Your task to perform on an android device: Go to Amazon Image 0: 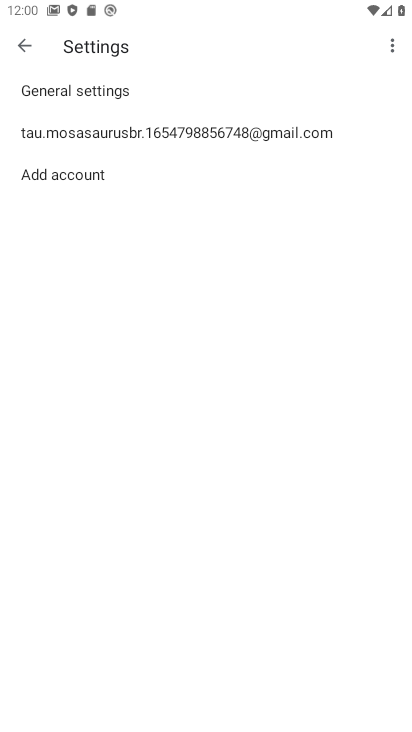
Step 0: press home button
Your task to perform on an android device: Go to Amazon Image 1: 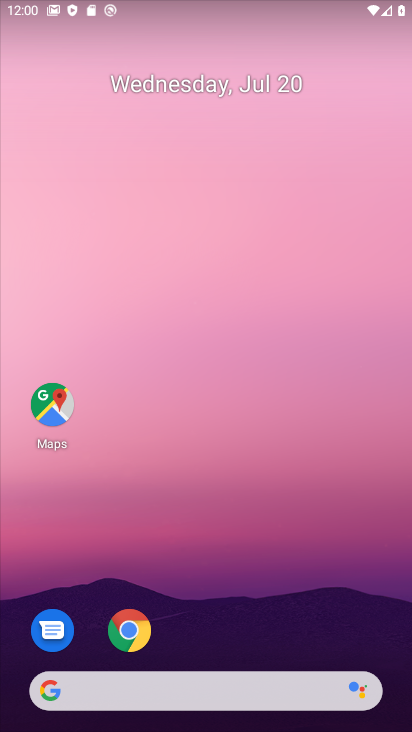
Step 1: click (129, 626)
Your task to perform on an android device: Go to Amazon Image 2: 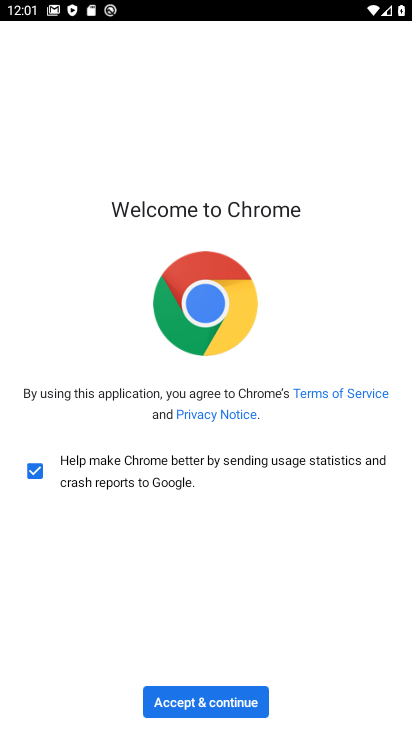
Step 2: click (203, 709)
Your task to perform on an android device: Go to Amazon Image 3: 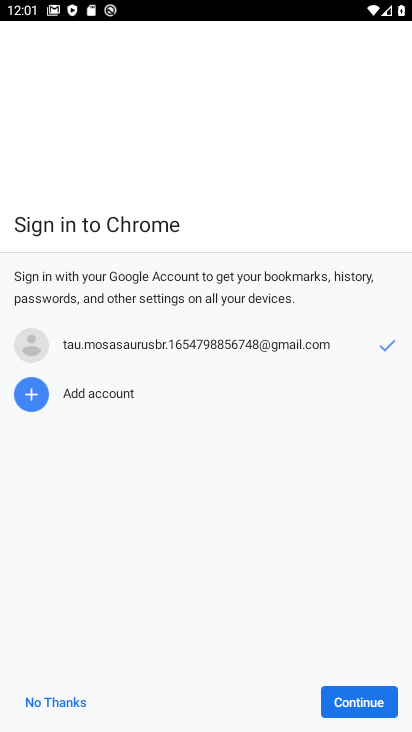
Step 3: click (344, 707)
Your task to perform on an android device: Go to Amazon Image 4: 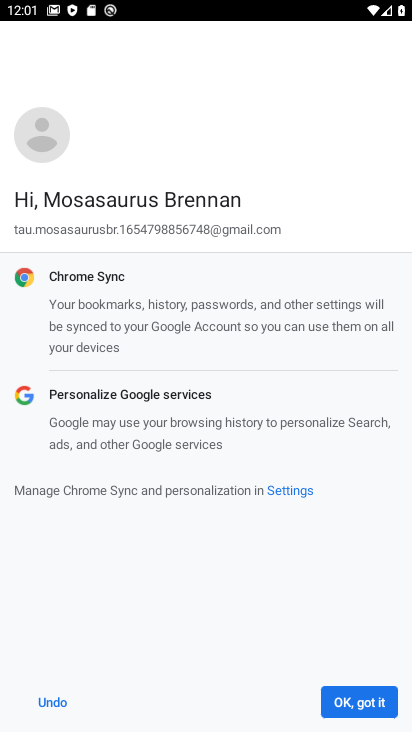
Step 4: click (344, 707)
Your task to perform on an android device: Go to Amazon Image 5: 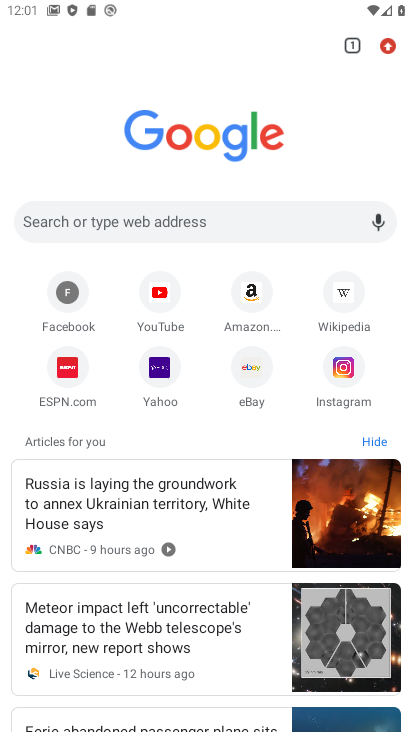
Step 5: click (250, 284)
Your task to perform on an android device: Go to Amazon Image 6: 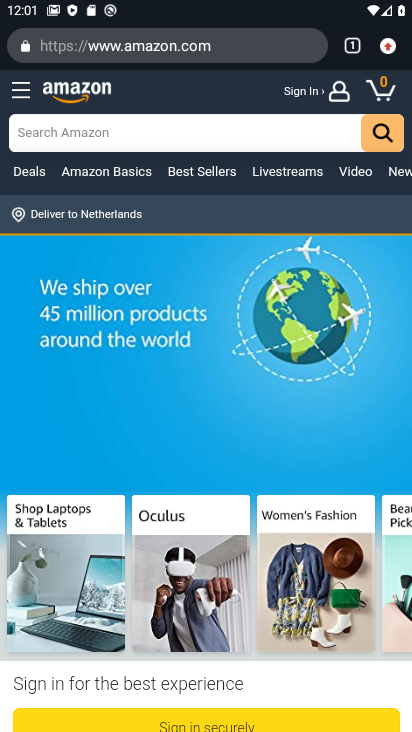
Step 6: task complete